Your task to perform on an android device: change the upload size in google photos Image 0: 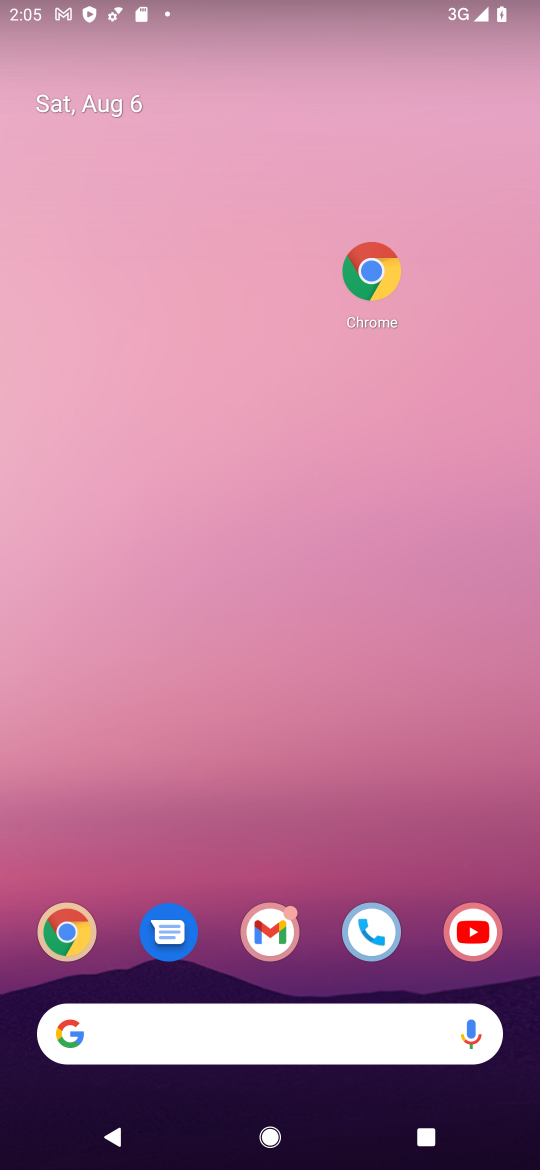
Step 0: drag from (331, 758) to (200, 26)
Your task to perform on an android device: change the upload size in google photos Image 1: 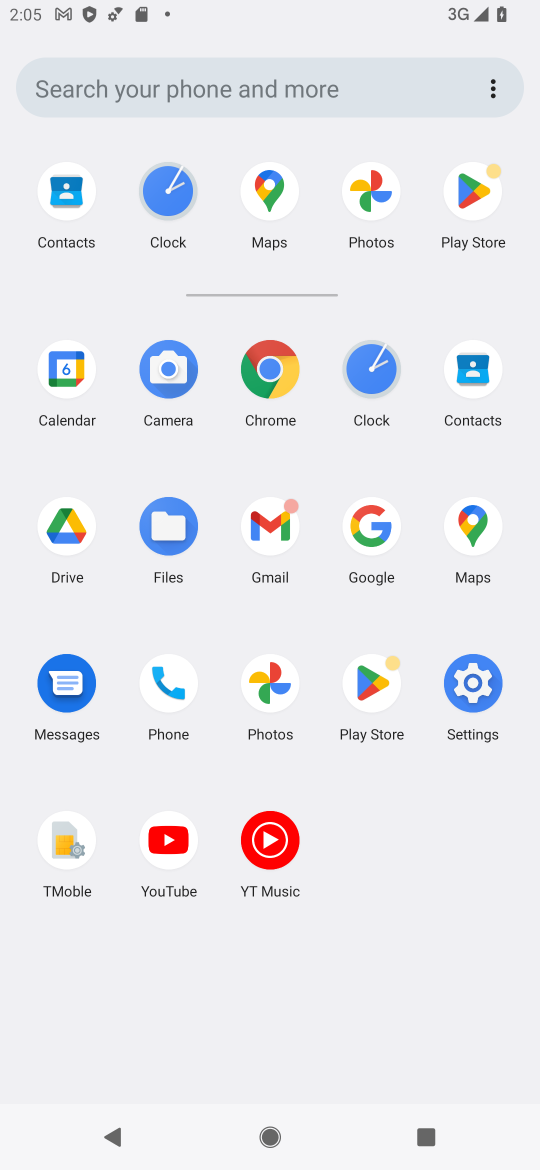
Step 1: click (274, 680)
Your task to perform on an android device: change the upload size in google photos Image 2: 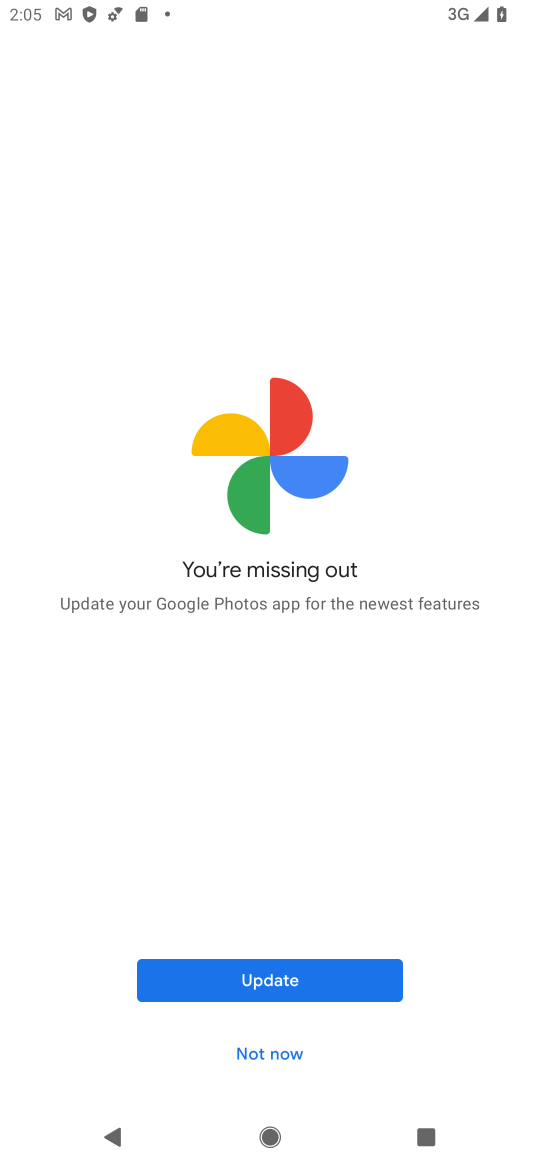
Step 2: click (369, 975)
Your task to perform on an android device: change the upload size in google photos Image 3: 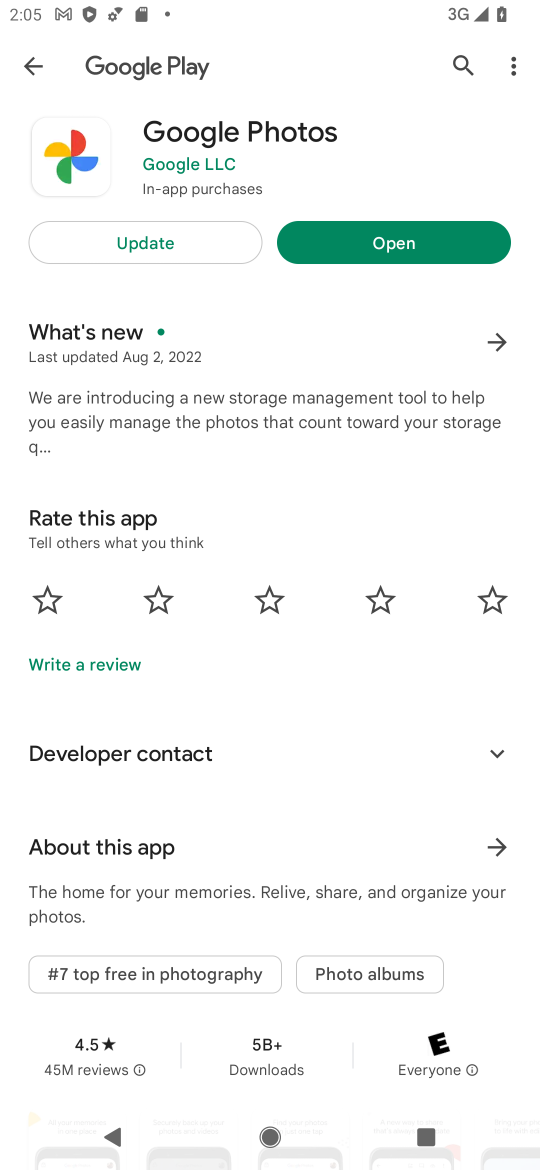
Step 3: click (157, 243)
Your task to perform on an android device: change the upload size in google photos Image 4: 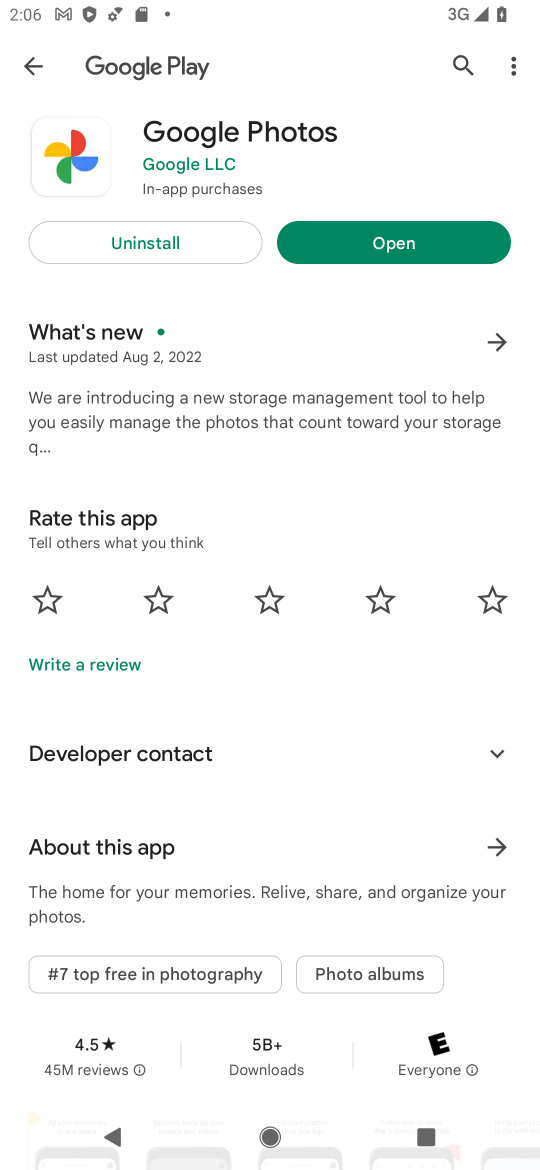
Step 4: click (427, 243)
Your task to perform on an android device: change the upload size in google photos Image 5: 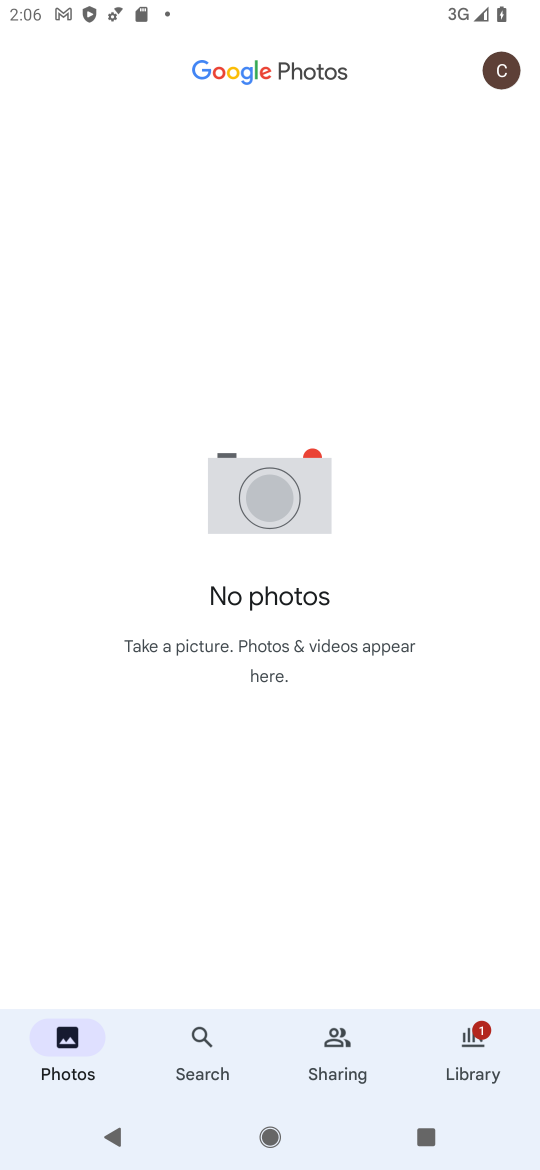
Step 5: click (512, 67)
Your task to perform on an android device: change the upload size in google photos Image 6: 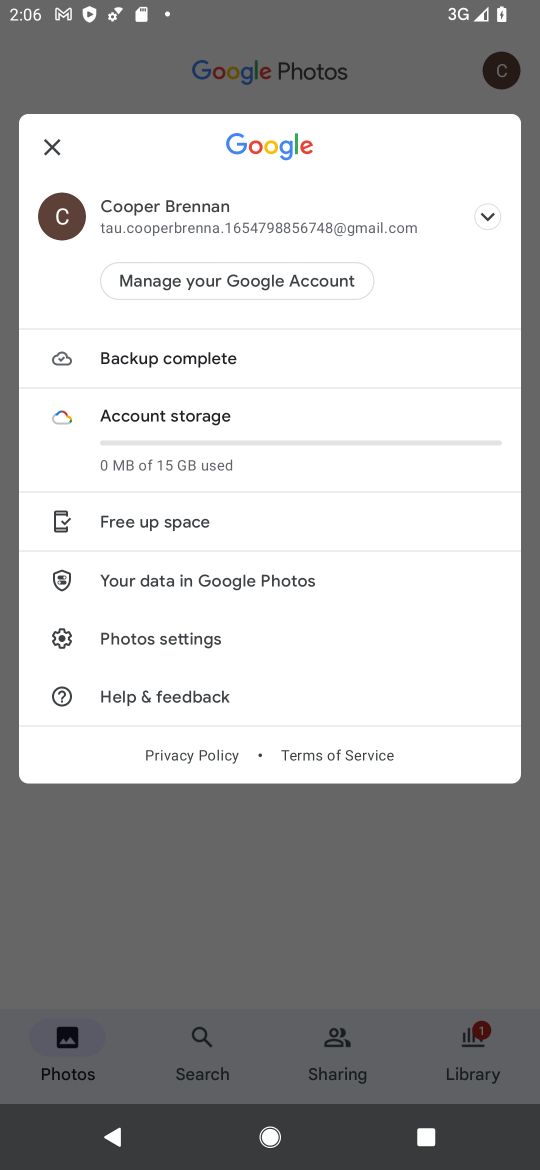
Step 6: click (178, 639)
Your task to perform on an android device: change the upload size in google photos Image 7: 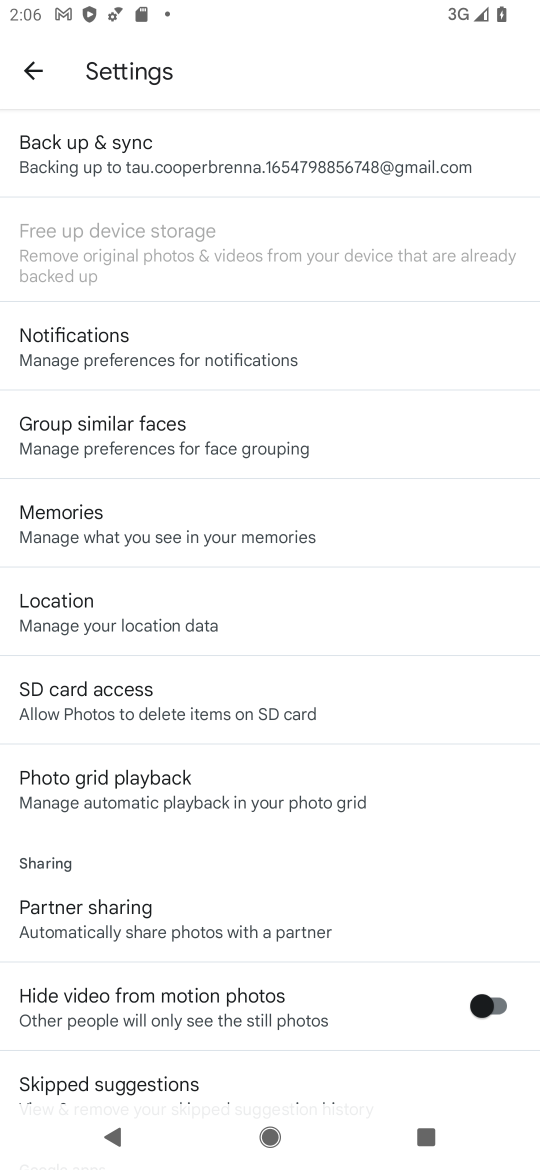
Step 7: click (147, 169)
Your task to perform on an android device: change the upload size in google photos Image 8: 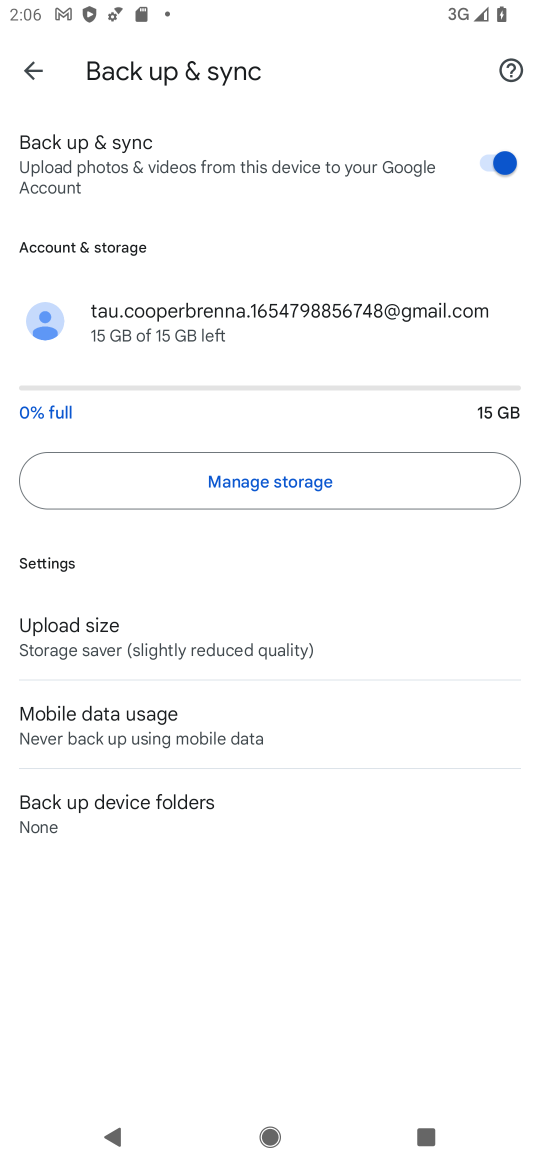
Step 8: click (101, 640)
Your task to perform on an android device: change the upload size in google photos Image 9: 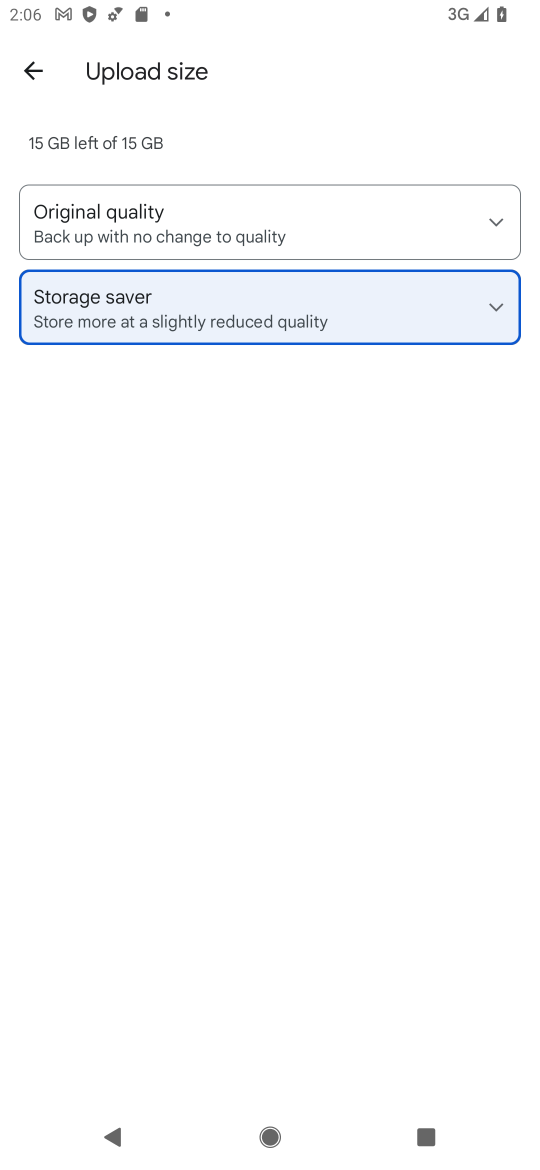
Step 9: click (154, 205)
Your task to perform on an android device: change the upload size in google photos Image 10: 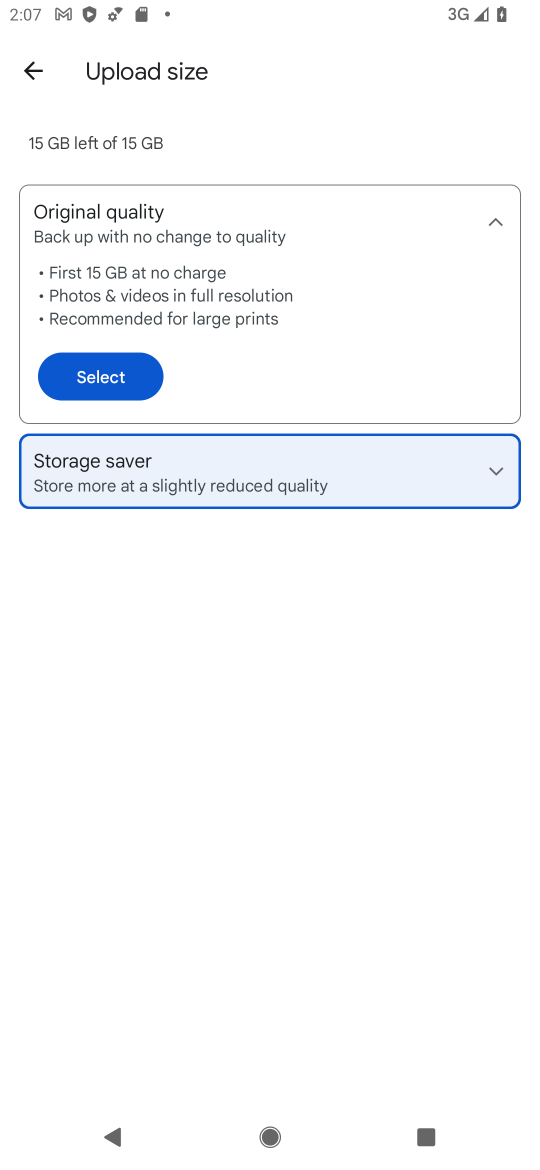
Step 10: click (102, 373)
Your task to perform on an android device: change the upload size in google photos Image 11: 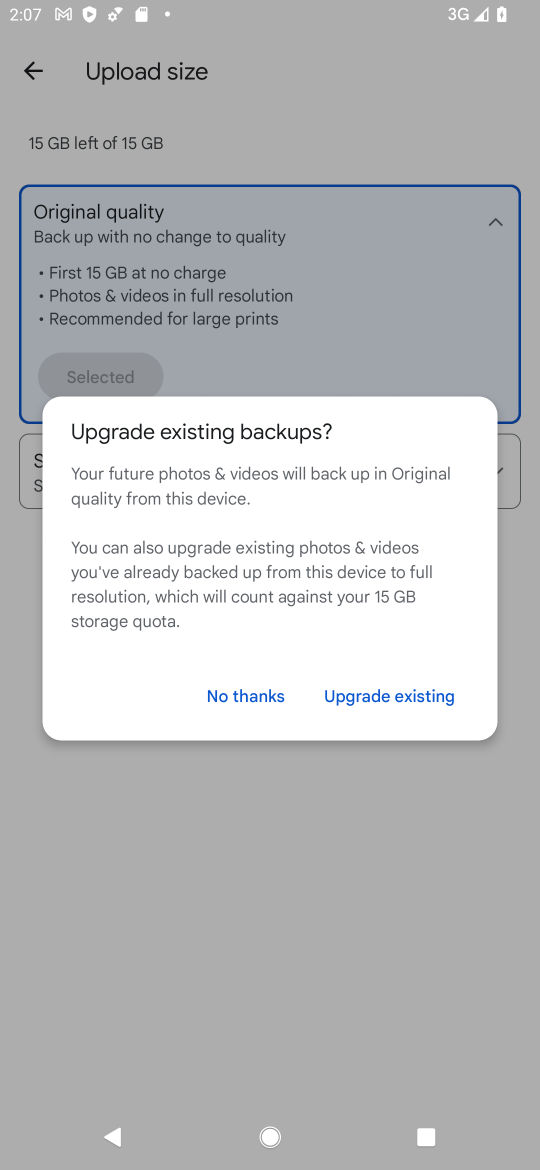
Step 11: click (414, 703)
Your task to perform on an android device: change the upload size in google photos Image 12: 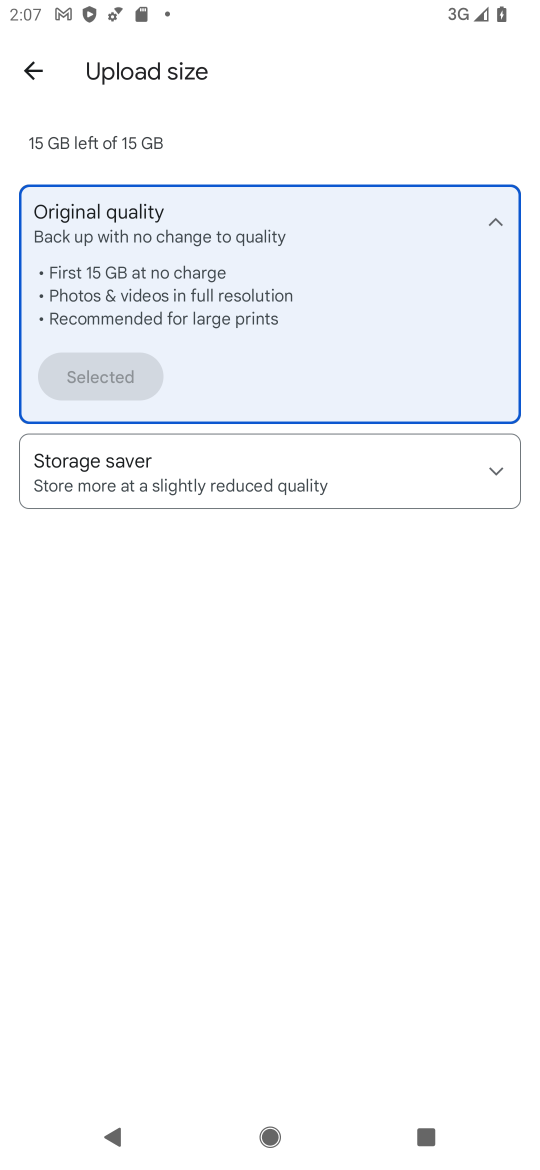
Step 12: task complete